Your task to perform on an android device: open app "Lyft - Rideshare, Bikes, Scooters & Transit" (install if not already installed) Image 0: 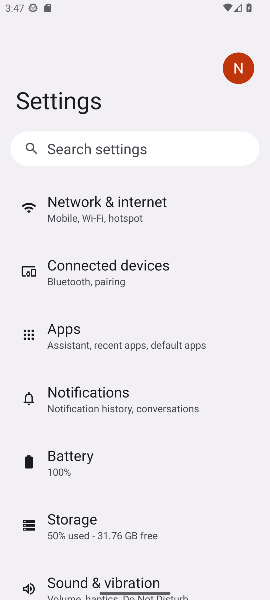
Step 0: press home button
Your task to perform on an android device: open app "Lyft - Rideshare, Bikes, Scooters & Transit" (install if not already installed) Image 1: 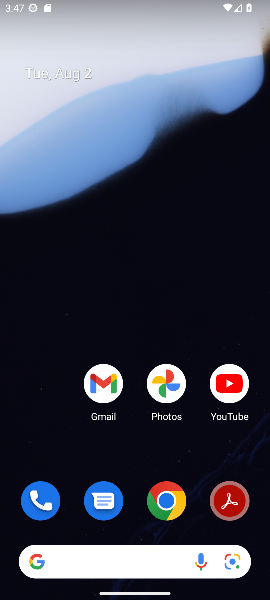
Step 1: drag from (213, 348) to (89, 0)
Your task to perform on an android device: open app "Lyft - Rideshare, Bikes, Scooters & Transit" (install if not already installed) Image 2: 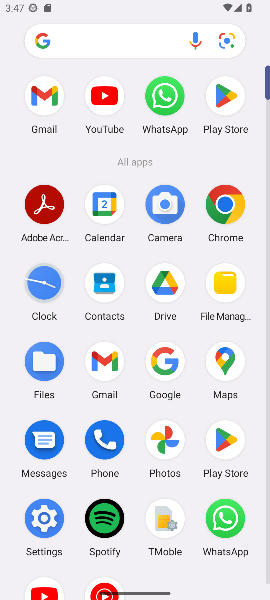
Step 2: click (227, 425)
Your task to perform on an android device: open app "Lyft - Rideshare, Bikes, Scooters & Transit" (install if not already installed) Image 3: 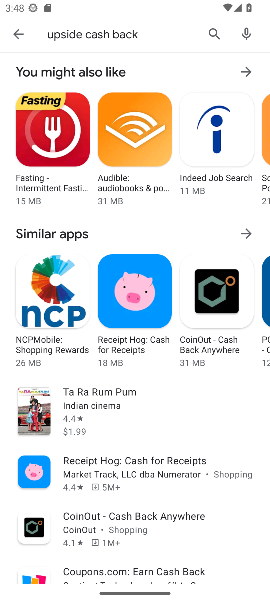
Step 3: click (211, 28)
Your task to perform on an android device: open app "Lyft - Rideshare, Bikes, Scooters & Transit" (install if not already installed) Image 4: 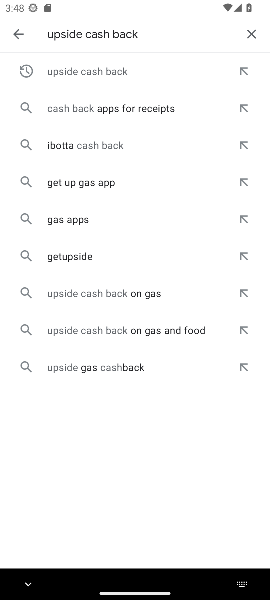
Step 4: click (251, 34)
Your task to perform on an android device: open app "Lyft - Rideshare, Bikes, Scooters & Transit" (install if not already installed) Image 5: 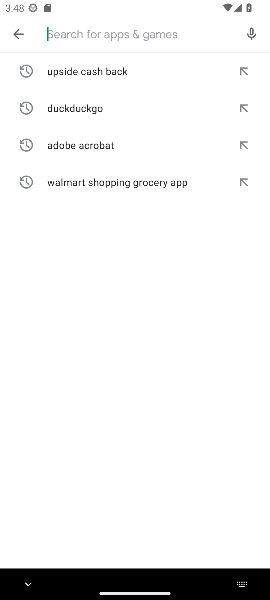
Step 5: type "lyft"
Your task to perform on an android device: open app "Lyft - Rideshare, Bikes, Scooters & Transit" (install if not already installed) Image 6: 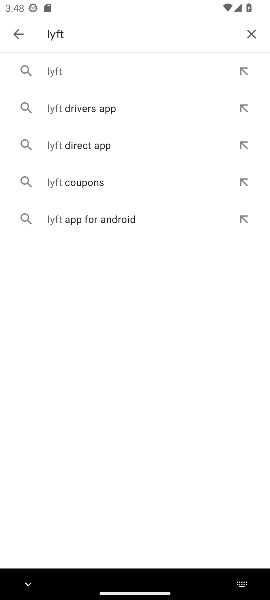
Step 6: click (60, 69)
Your task to perform on an android device: open app "Lyft - Rideshare, Bikes, Scooters & Transit" (install if not already installed) Image 7: 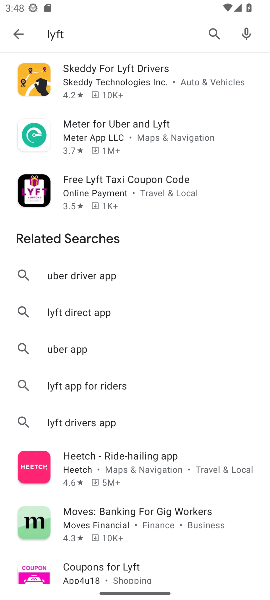
Step 7: task complete